Your task to perform on an android device: Search for hotels in Orlando Image 0: 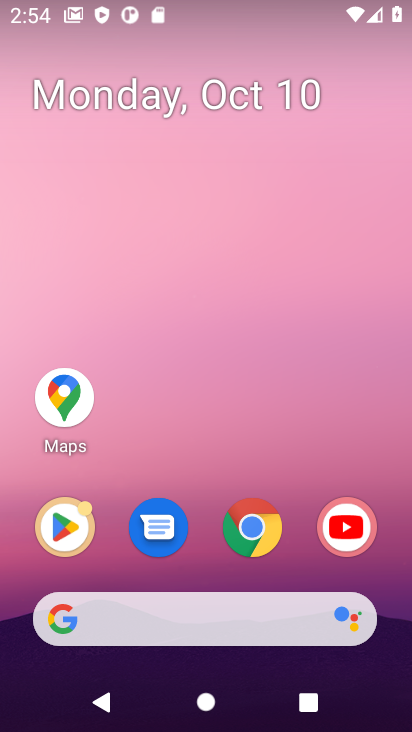
Step 0: press home button
Your task to perform on an android device: Search for hotels in Orlando Image 1: 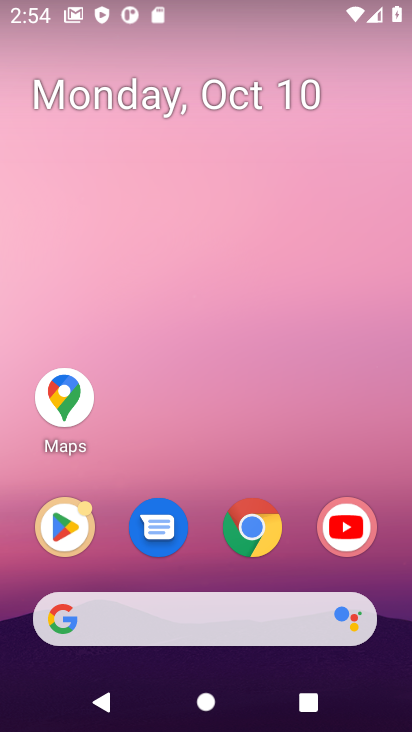
Step 1: click (287, 624)
Your task to perform on an android device: Search for hotels in Orlando Image 2: 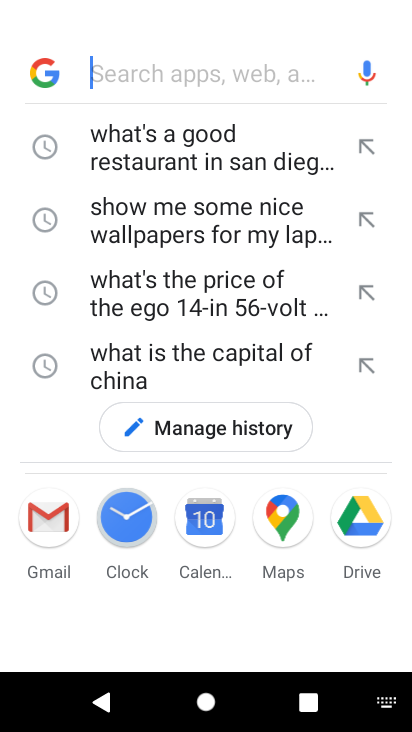
Step 2: type "hotels in Orlando"
Your task to perform on an android device: Search for hotels in Orlando Image 3: 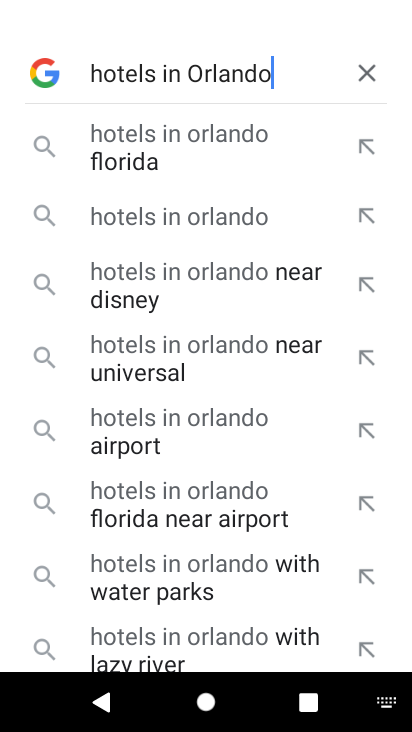
Step 3: press enter
Your task to perform on an android device: Search for hotels in Orlando Image 4: 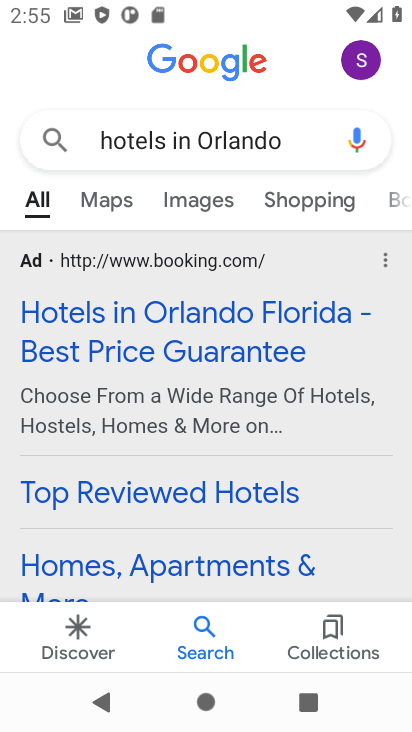
Step 4: click (252, 322)
Your task to perform on an android device: Search for hotels in Orlando Image 5: 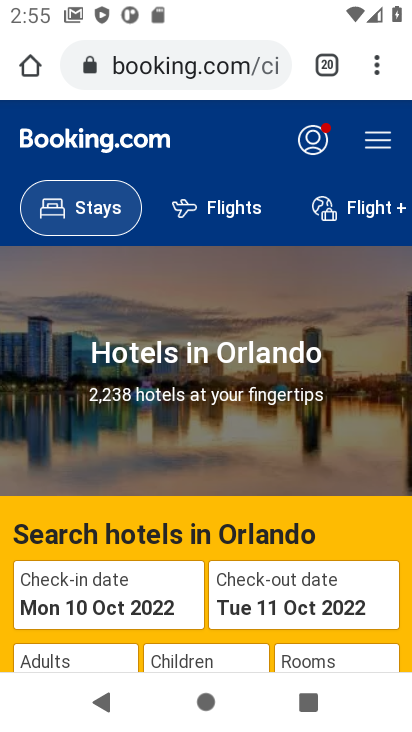
Step 5: drag from (230, 568) to (228, 437)
Your task to perform on an android device: Search for hotels in Orlando Image 6: 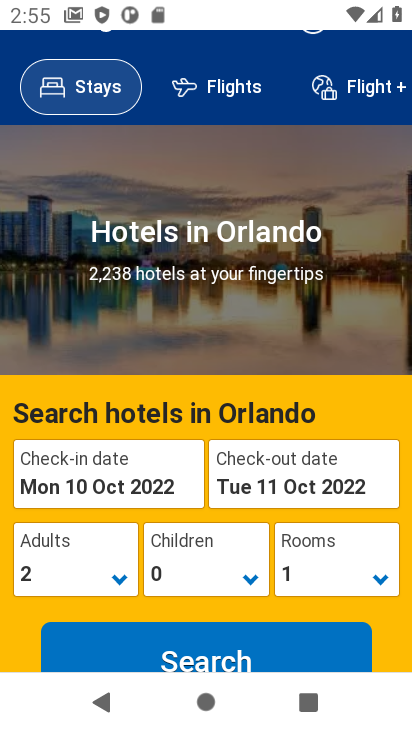
Step 6: drag from (202, 566) to (230, 410)
Your task to perform on an android device: Search for hotels in Orlando Image 7: 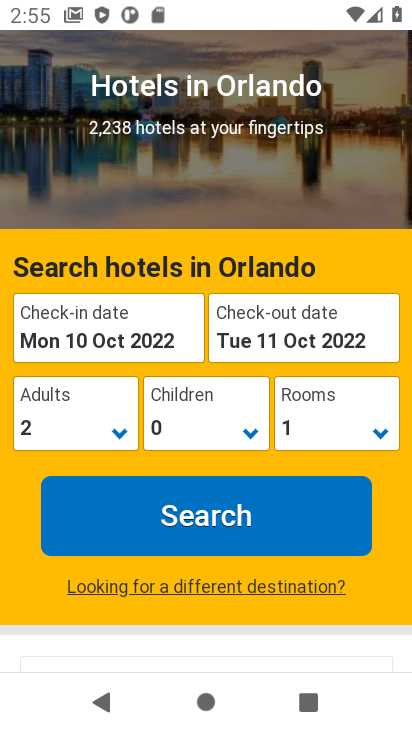
Step 7: click (232, 522)
Your task to perform on an android device: Search for hotels in Orlando Image 8: 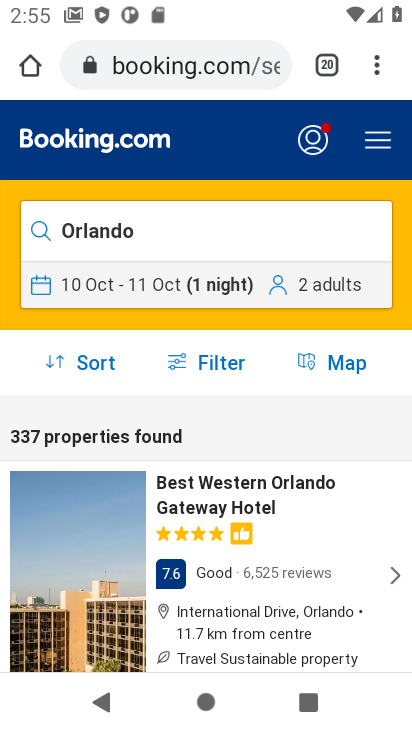
Step 8: task complete